Your task to perform on an android device: Open location settings Image 0: 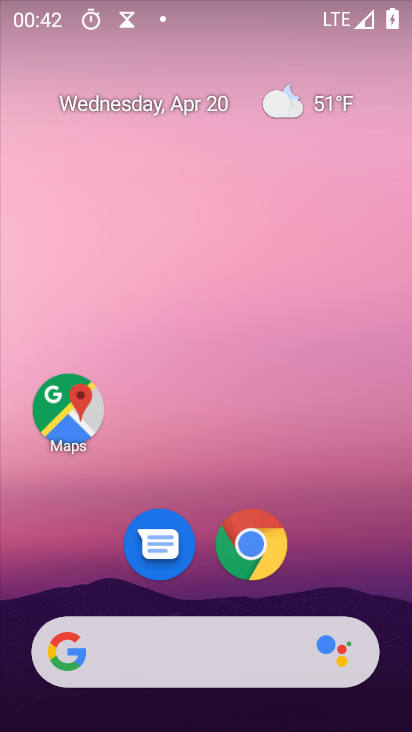
Step 0: drag from (319, 590) to (368, 85)
Your task to perform on an android device: Open location settings Image 1: 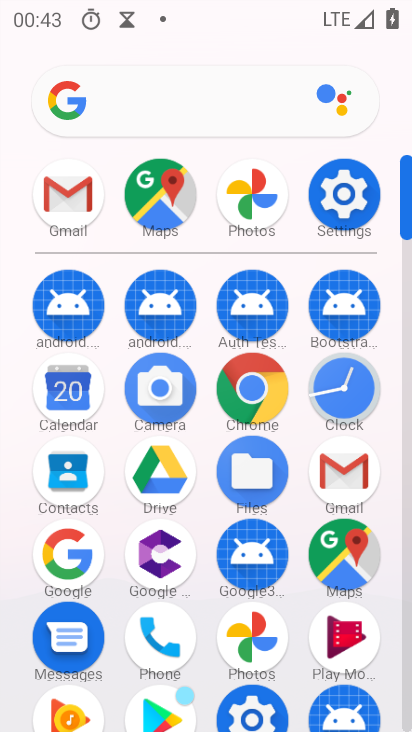
Step 1: click (344, 206)
Your task to perform on an android device: Open location settings Image 2: 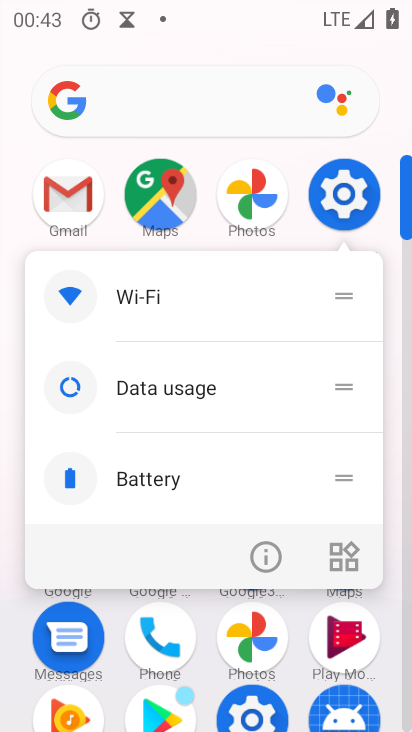
Step 2: click (344, 206)
Your task to perform on an android device: Open location settings Image 3: 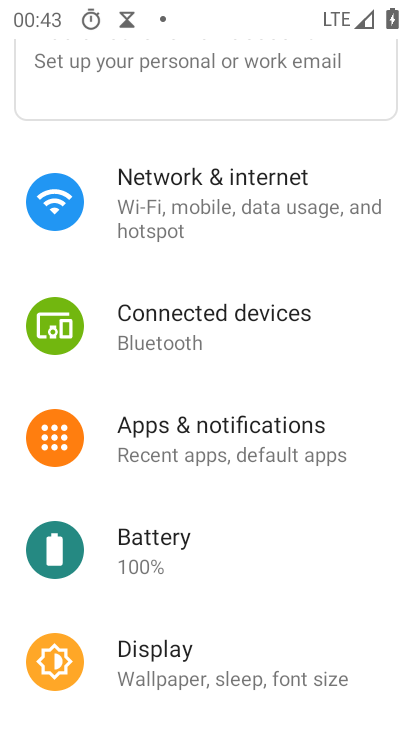
Step 3: drag from (188, 619) to (205, 503)
Your task to perform on an android device: Open location settings Image 4: 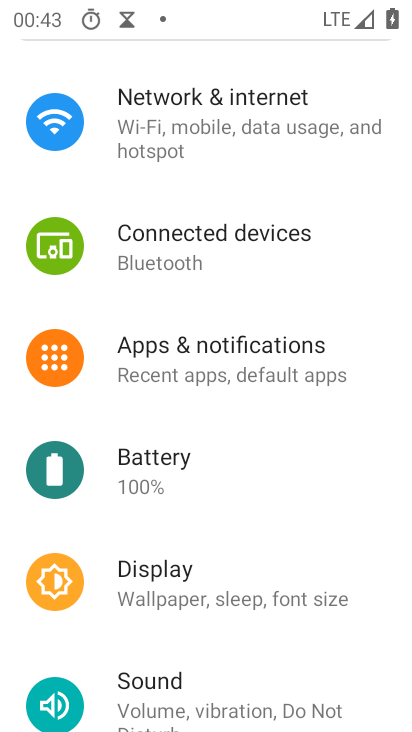
Step 4: drag from (204, 579) to (223, 463)
Your task to perform on an android device: Open location settings Image 5: 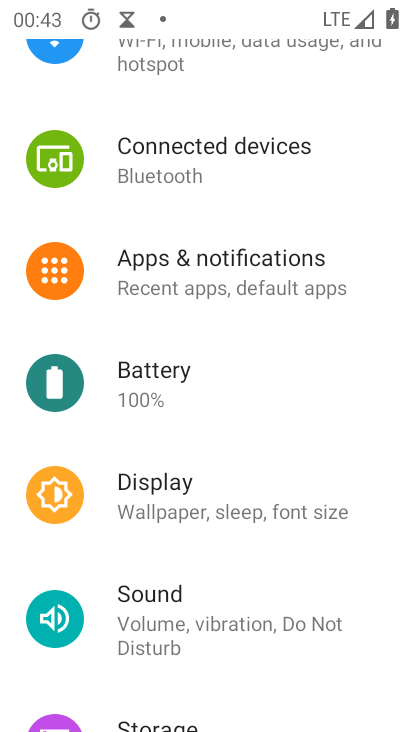
Step 5: drag from (227, 522) to (243, 435)
Your task to perform on an android device: Open location settings Image 6: 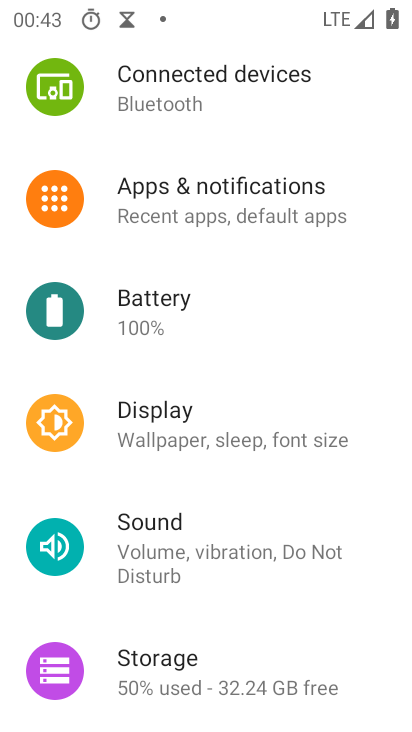
Step 6: drag from (237, 584) to (271, 470)
Your task to perform on an android device: Open location settings Image 7: 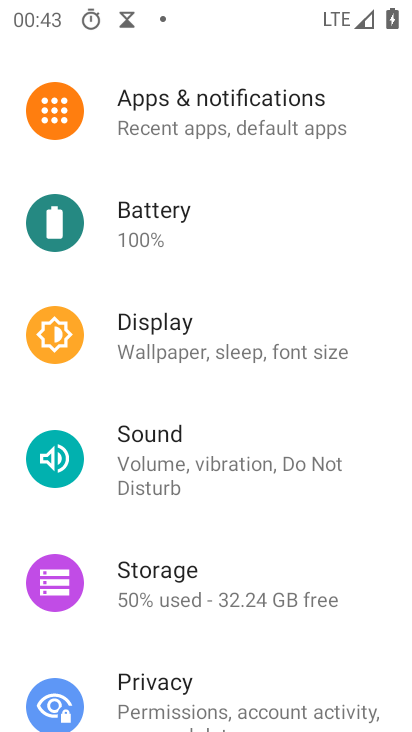
Step 7: drag from (268, 562) to (312, 431)
Your task to perform on an android device: Open location settings Image 8: 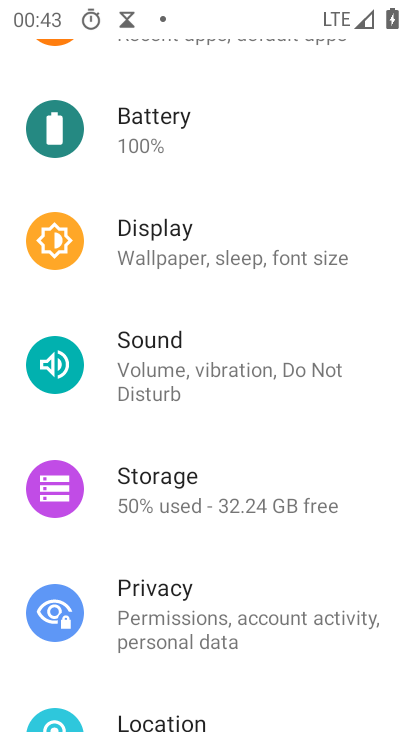
Step 8: drag from (211, 545) to (252, 413)
Your task to perform on an android device: Open location settings Image 9: 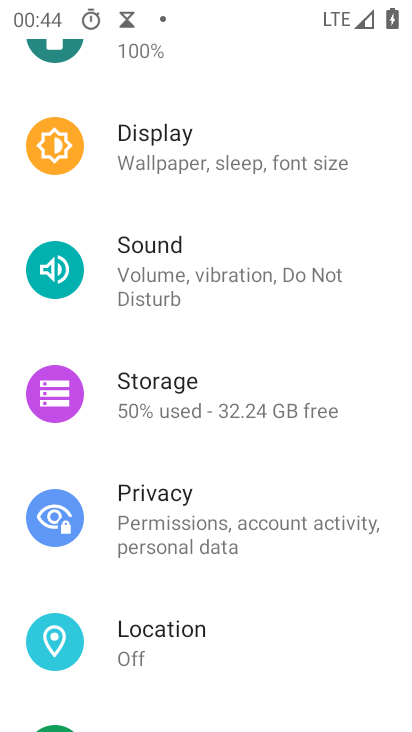
Step 9: drag from (239, 555) to (308, 402)
Your task to perform on an android device: Open location settings Image 10: 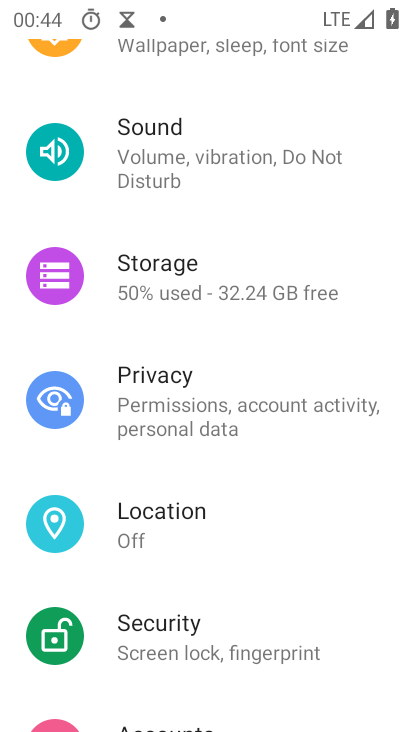
Step 10: drag from (224, 589) to (260, 500)
Your task to perform on an android device: Open location settings Image 11: 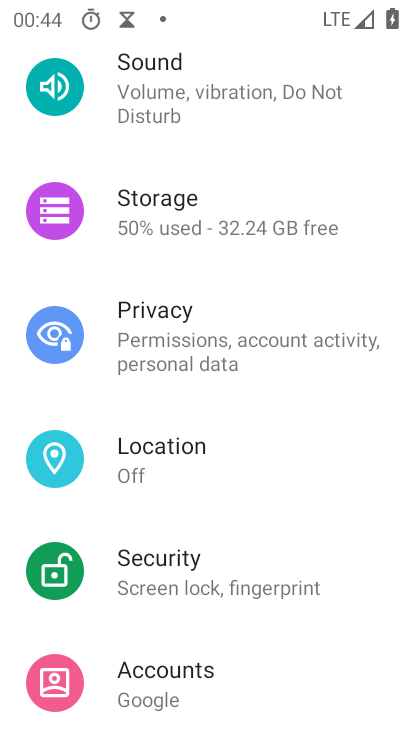
Step 11: drag from (270, 625) to (303, 485)
Your task to perform on an android device: Open location settings Image 12: 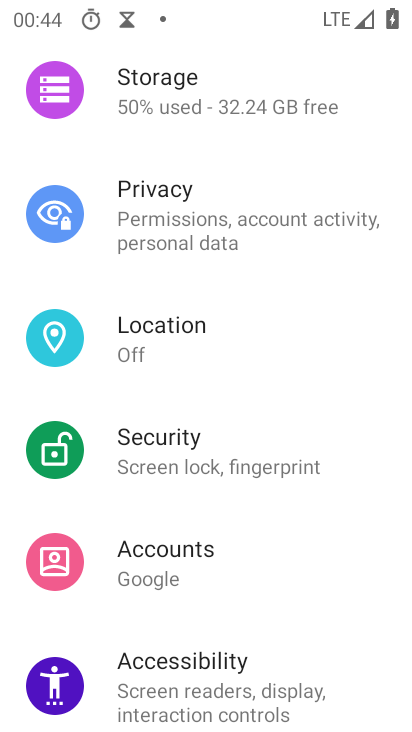
Step 12: click (200, 349)
Your task to perform on an android device: Open location settings Image 13: 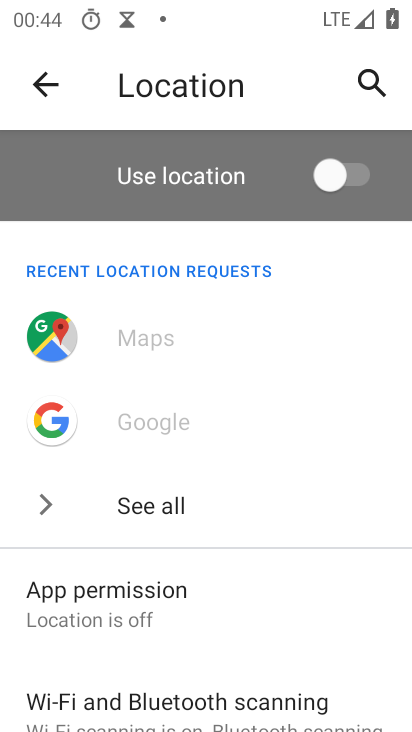
Step 13: task complete